Your task to perform on an android device: uninstall "Expedia: Hotels, Flights & Car" Image 0: 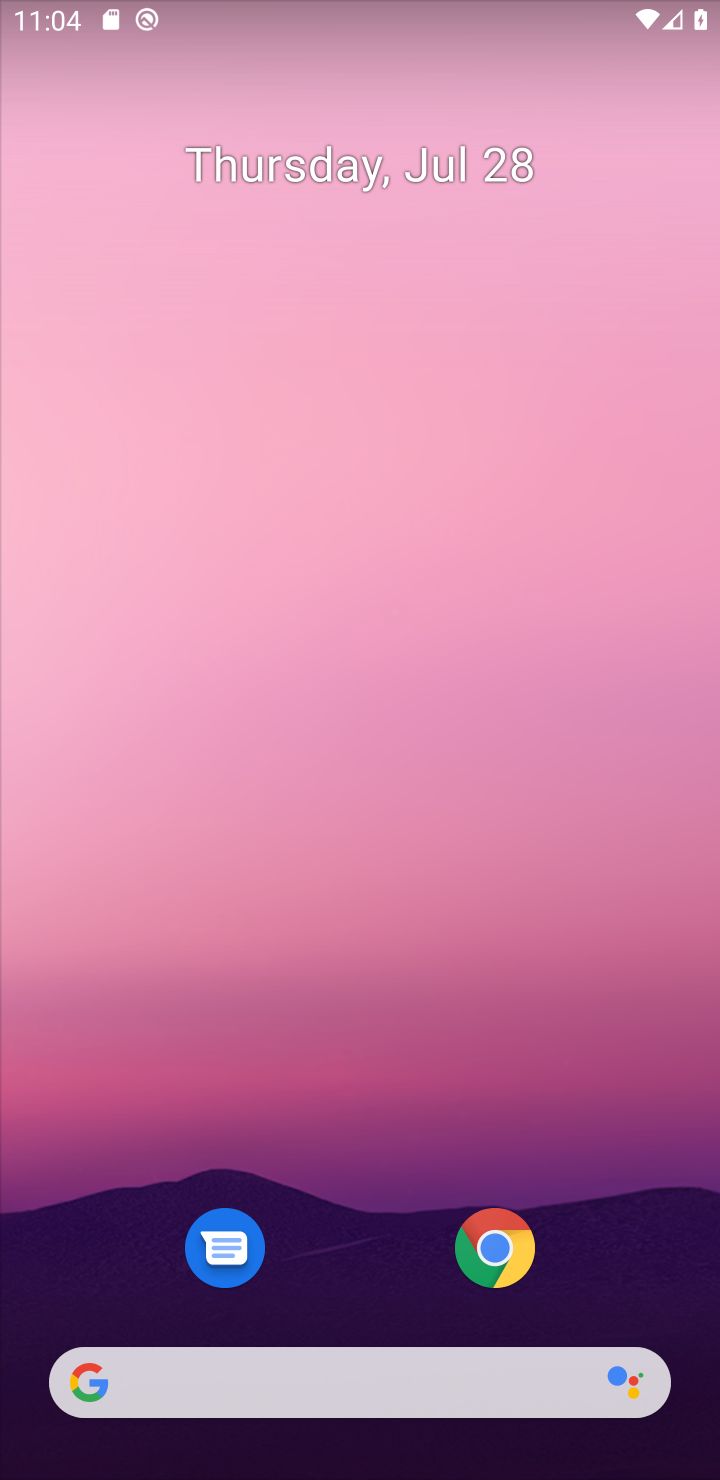
Step 0: press home button
Your task to perform on an android device: uninstall "Expedia: Hotels, Flights & Car" Image 1: 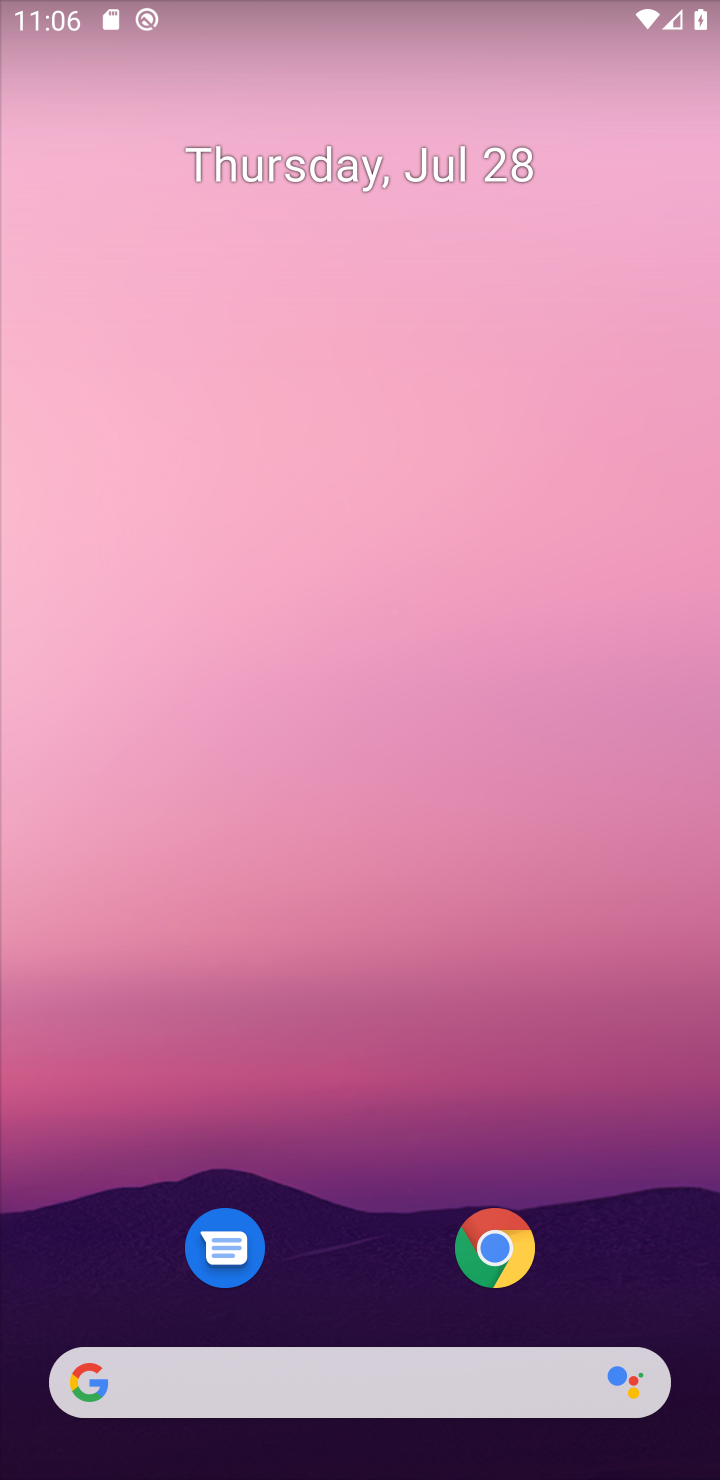
Step 1: drag from (337, 1190) to (550, 456)
Your task to perform on an android device: uninstall "Expedia: Hotels, Flights & Car" Image 2: 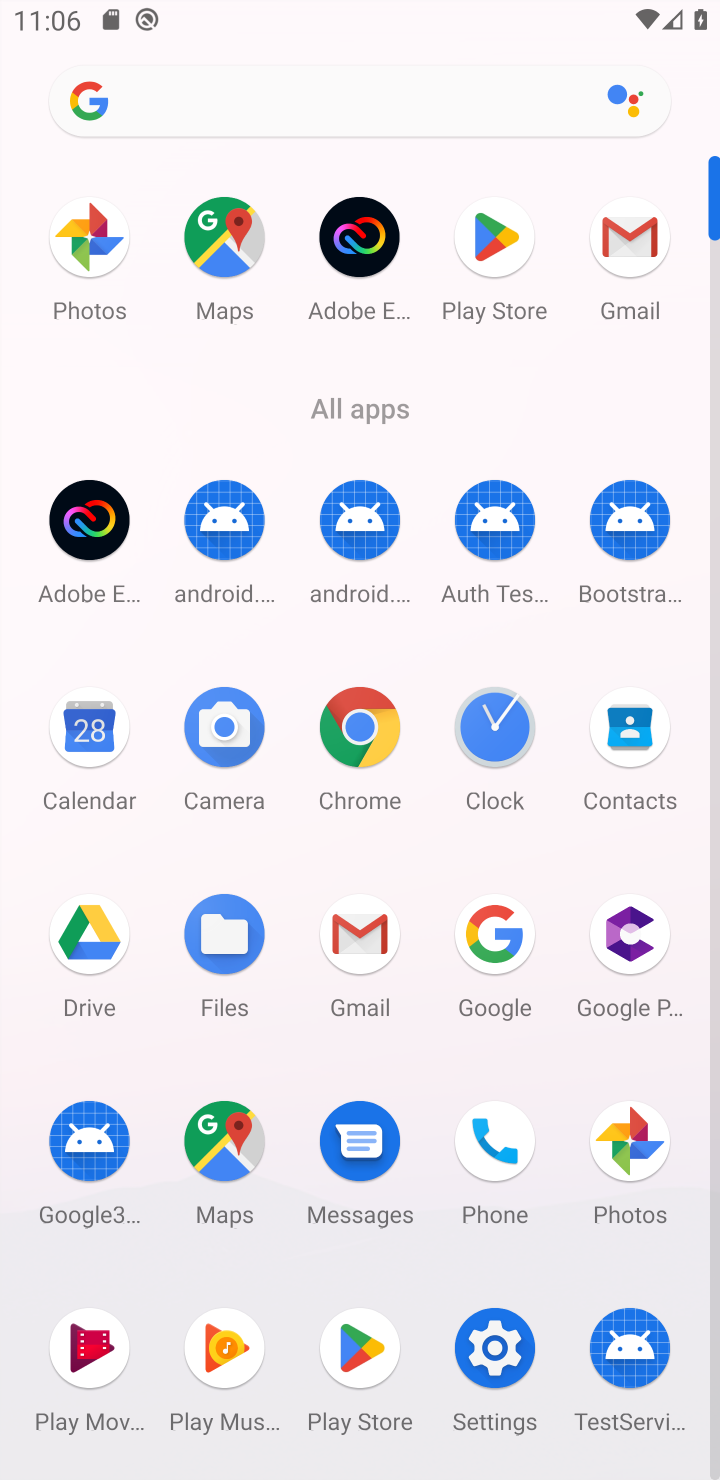
Step 2: click (475, 231)
Your task to perform on an android device: uninstall "Expedia: Hotels, Flights & Car" Image 3: 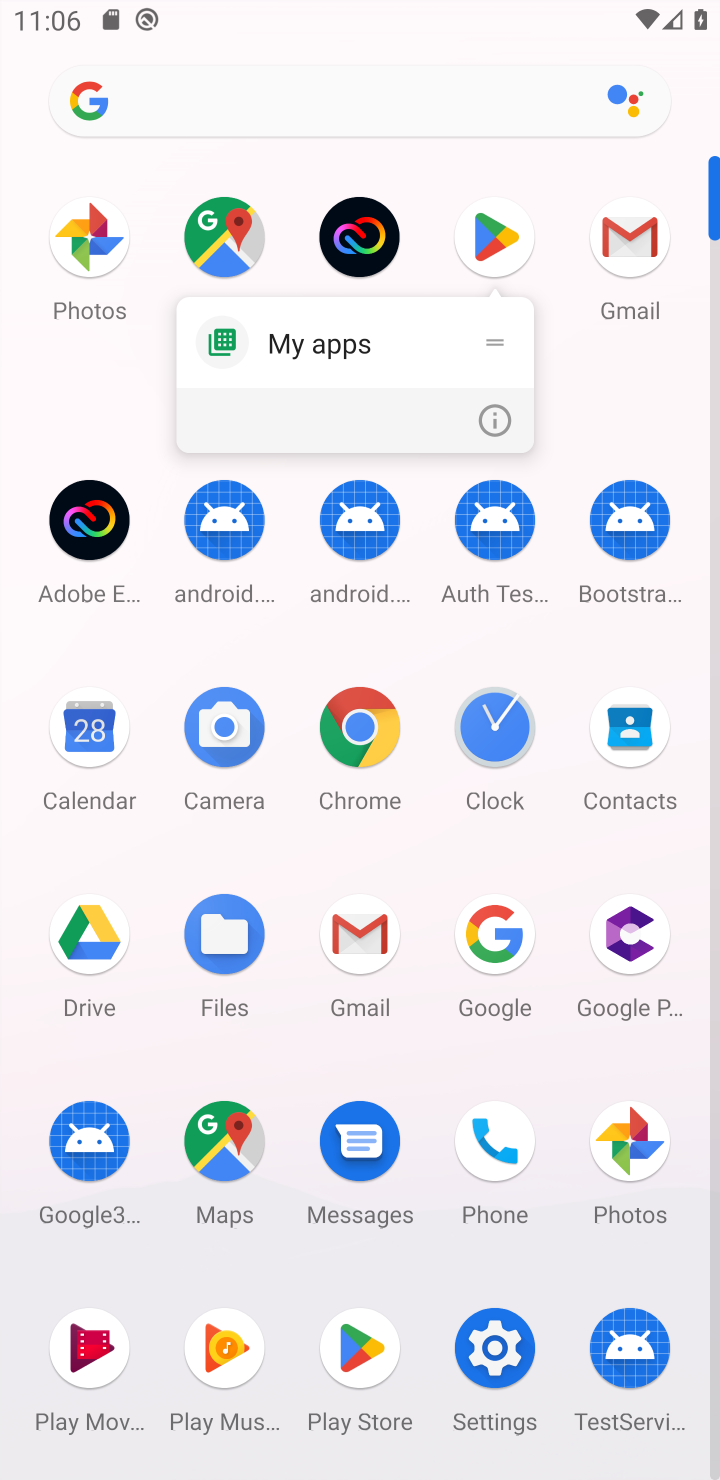
Step 3: click (477, 265)
Your task to perform on an android device: uninstall "Expedia: Hotels, Flights & Car" Image 4: 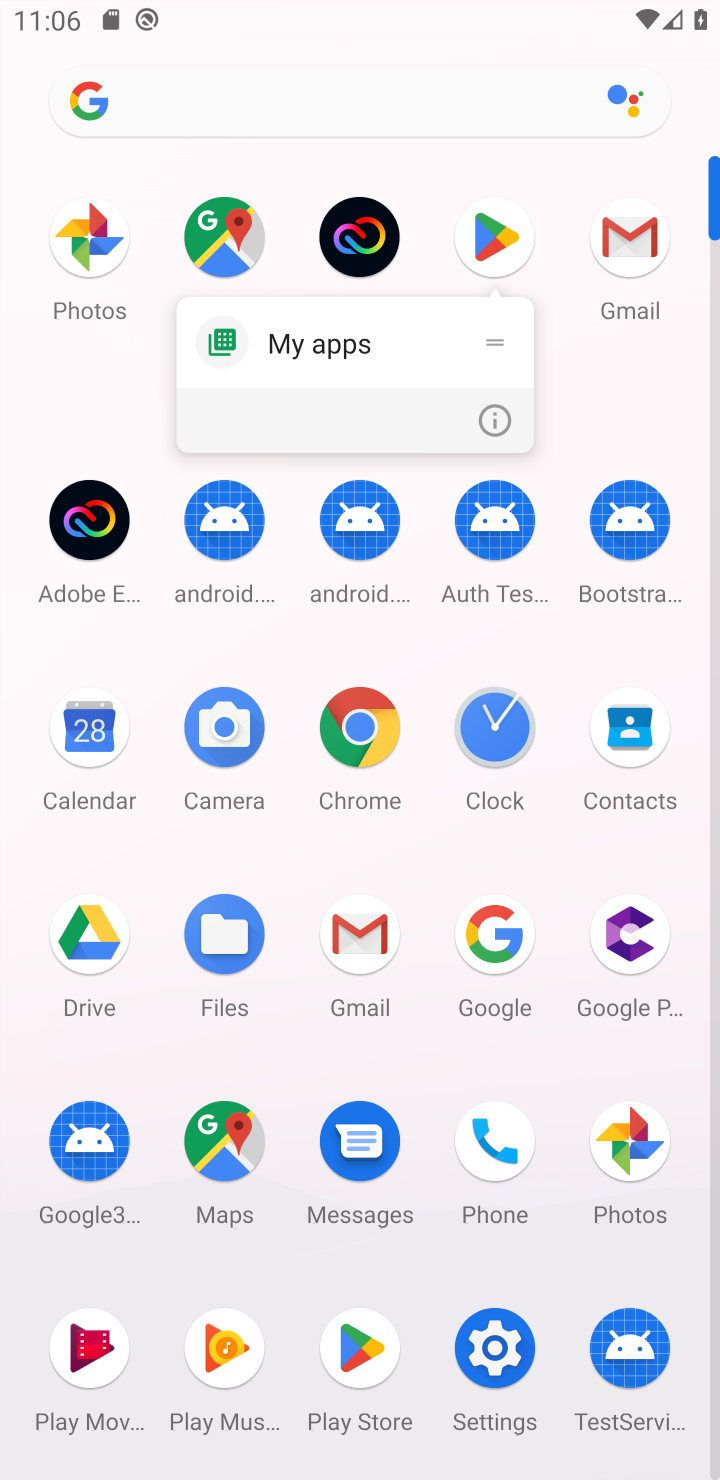
Step 4: click (477, 265)
Your task to perform on an android device: uninstall "Expedia: Hotels, Flights & Car" Image 5: 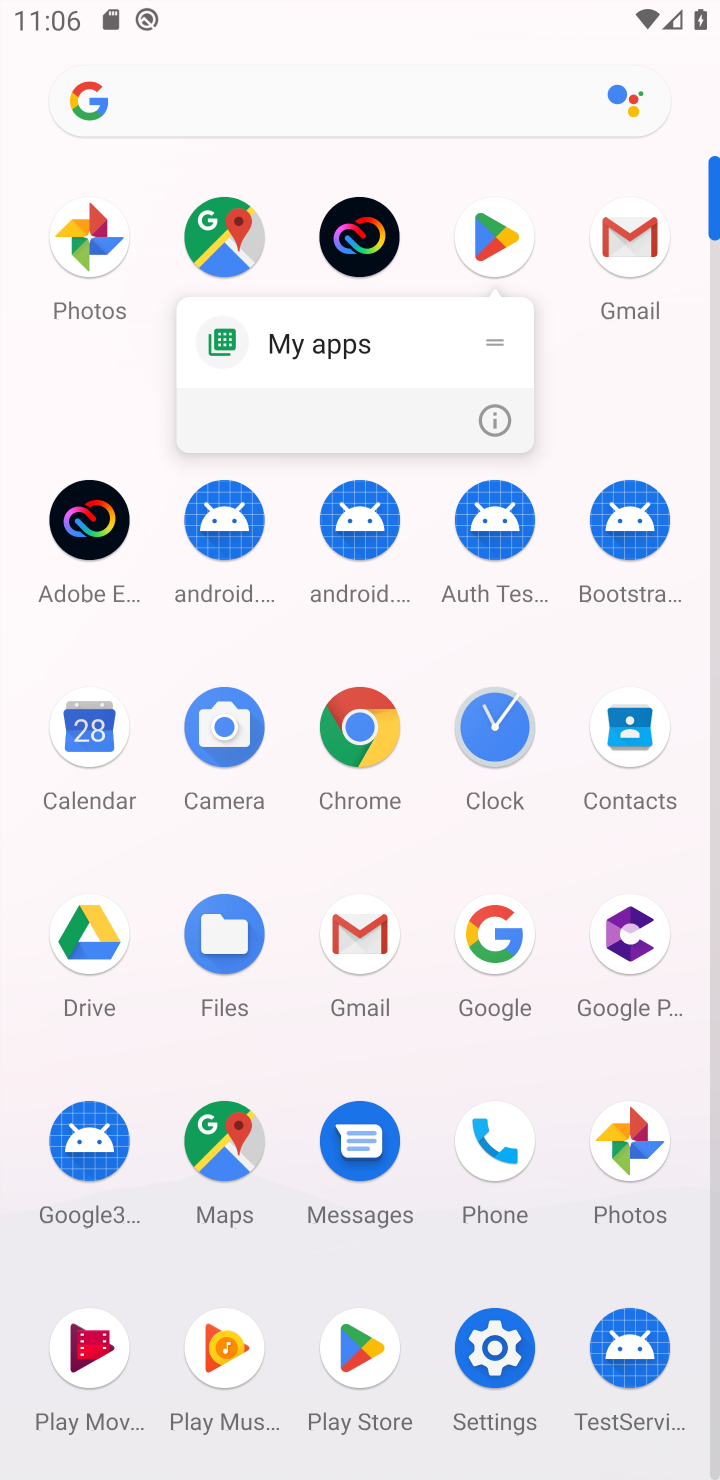
Step 5: click (479, 225)
Your task to perform on an android device: uninstall "Expedia: Hotels, Flights & Car" Image 6: 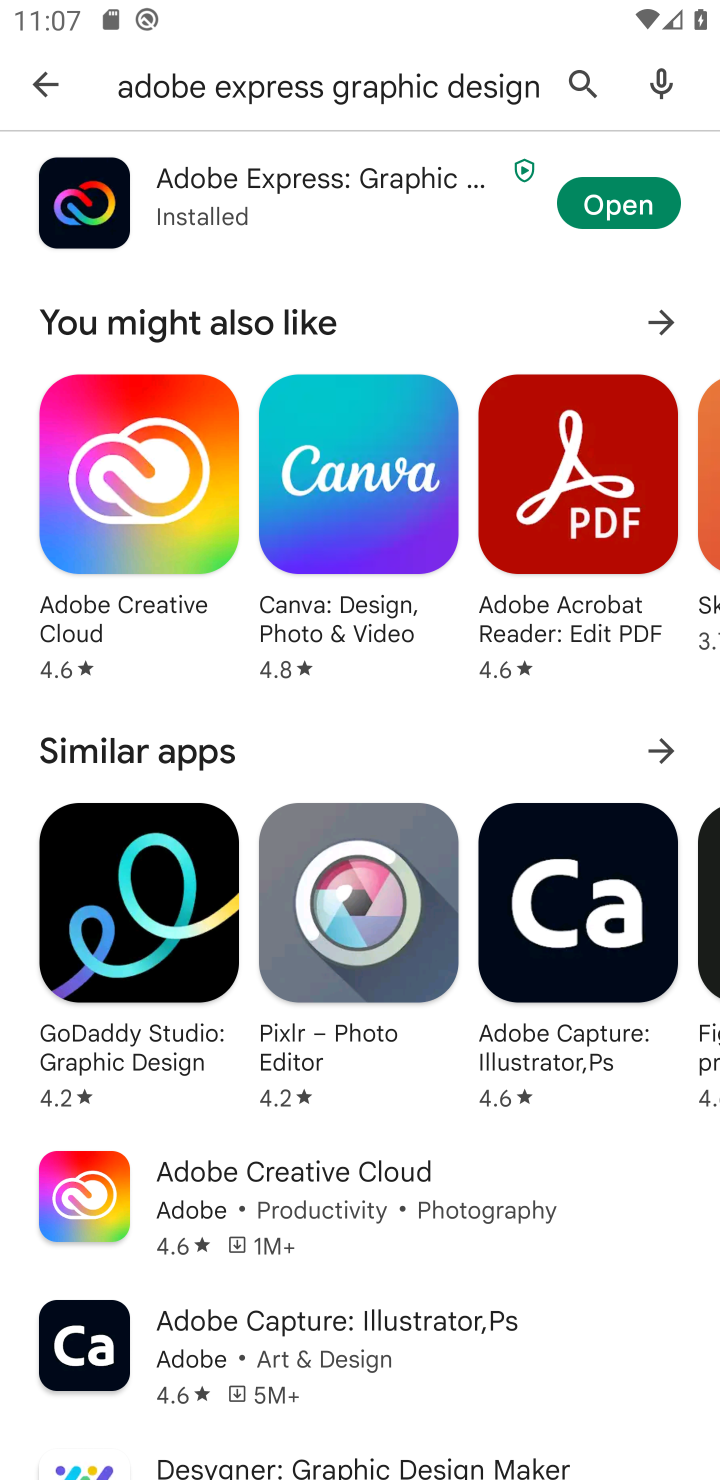
Step 6: click (586, 87)
Your task to perform on an android device: uninstall "Expedia: Hotels, Flights & Car" Image 7: 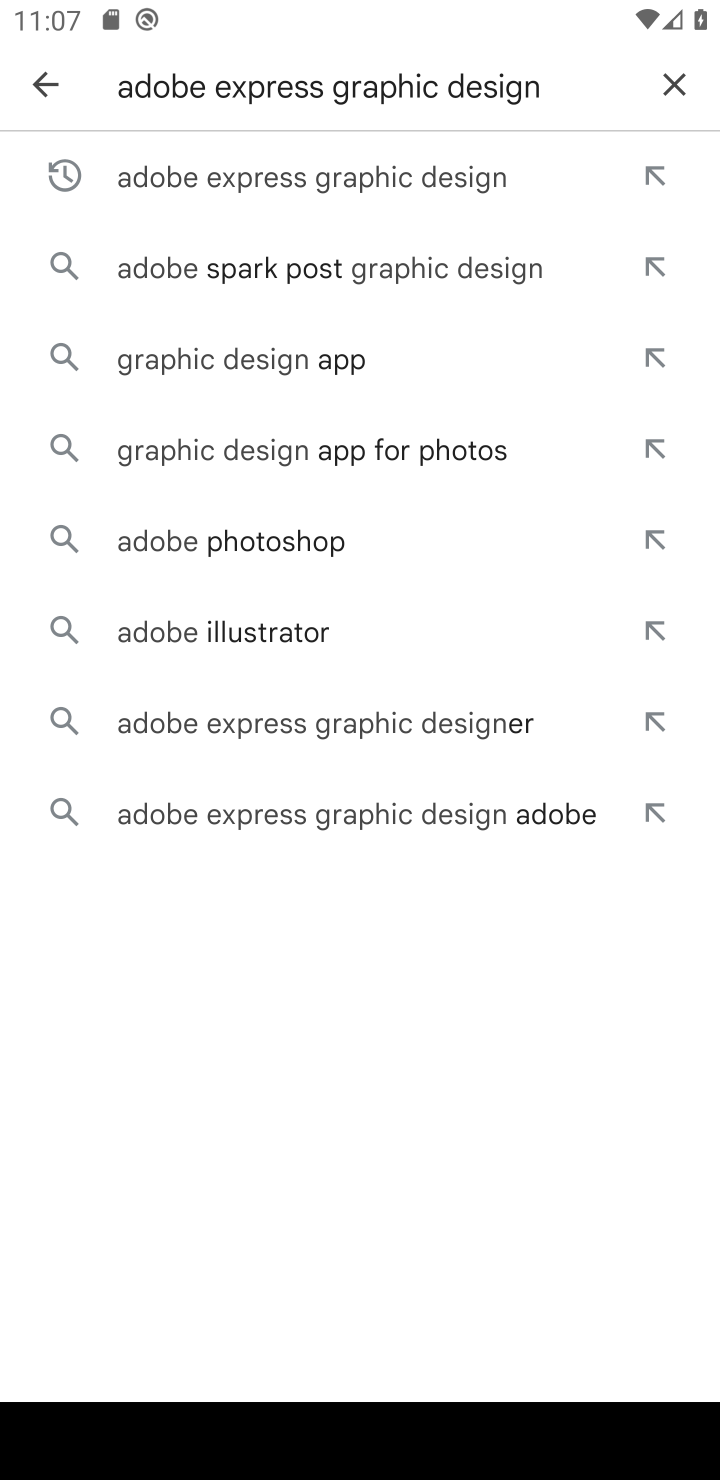
Step 7: click (669, 83)
Your task to perform on an android device: uninstall "Expedia: Hotels, Flights & Car" Image 8: 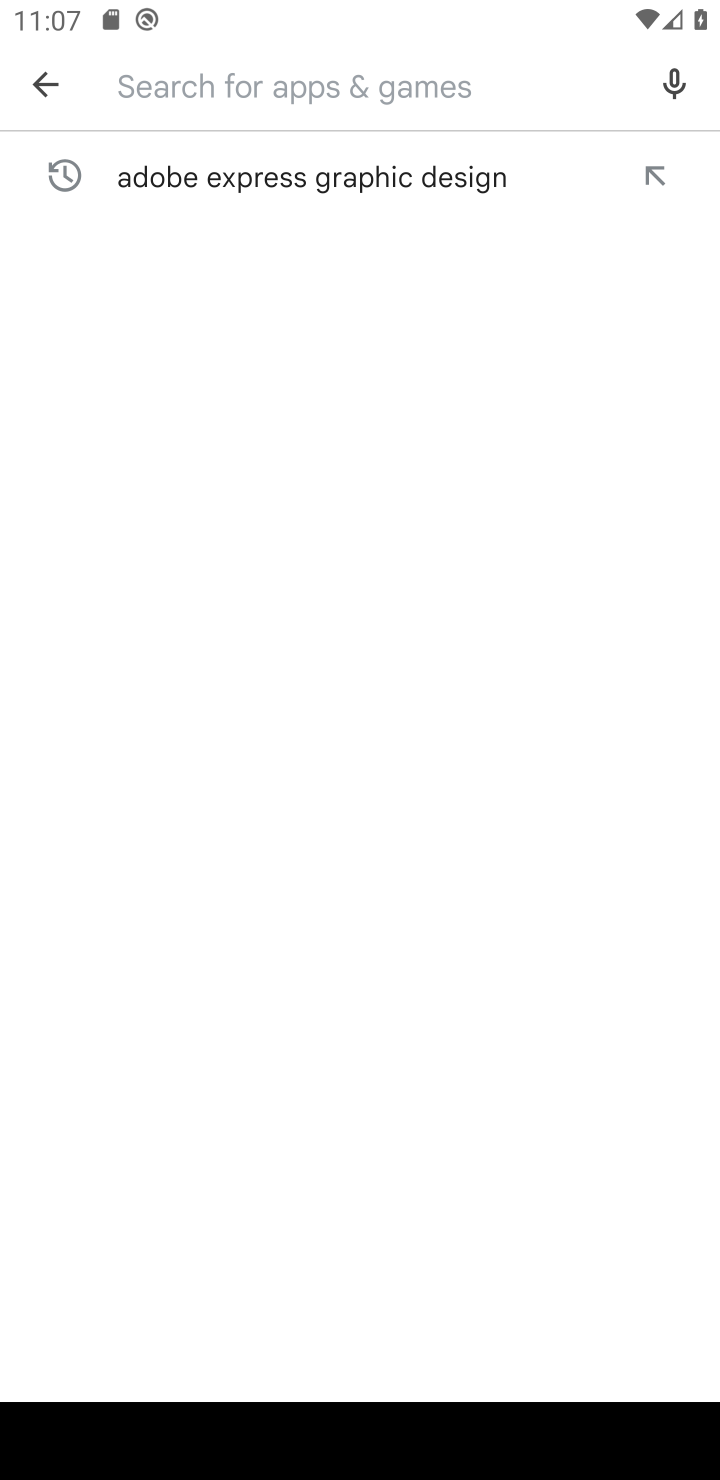
Step 8: type "Expedia: Hotels, Flights & Car""
Your task to perform on an android device: uninstall "Expedia: Hotels, Flights & Car" Image 9: 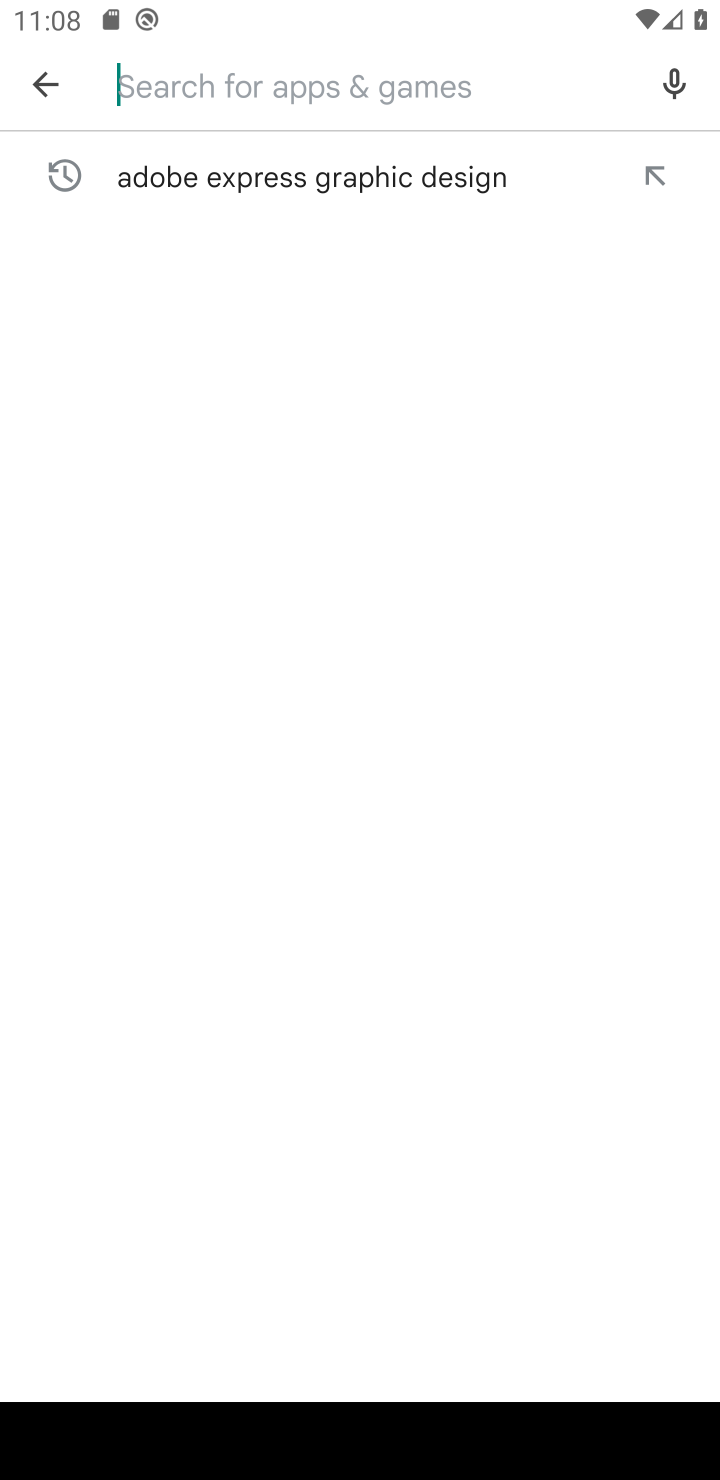
Step 9: type "Expedia: Hotels, Flights & Car""
Your task to perform on an android device: uninstall "Expedia: Hotels, Flights & Car" Image 10: 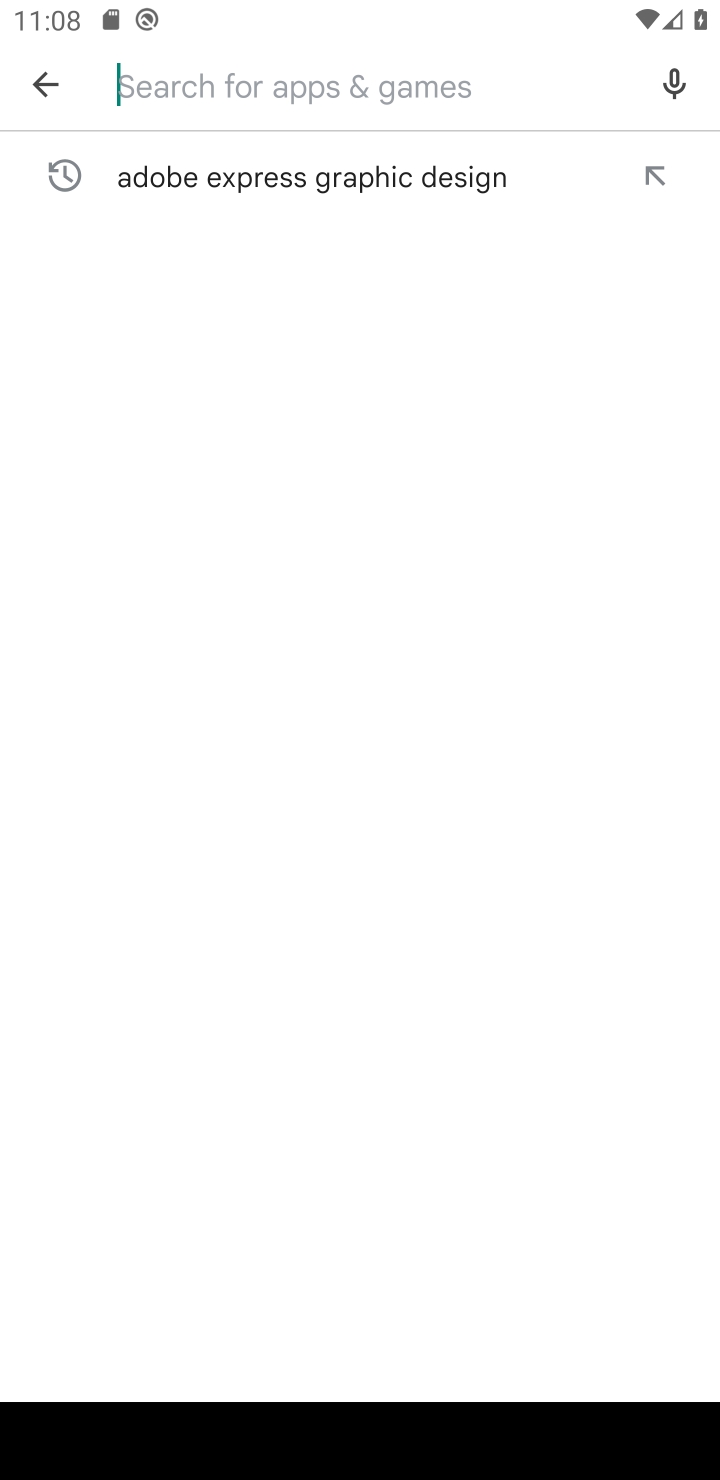
Step 10: type ""
Your task to perform on an android device: uninstall "Expedia: Hotels, Flights & Car" Image 11: 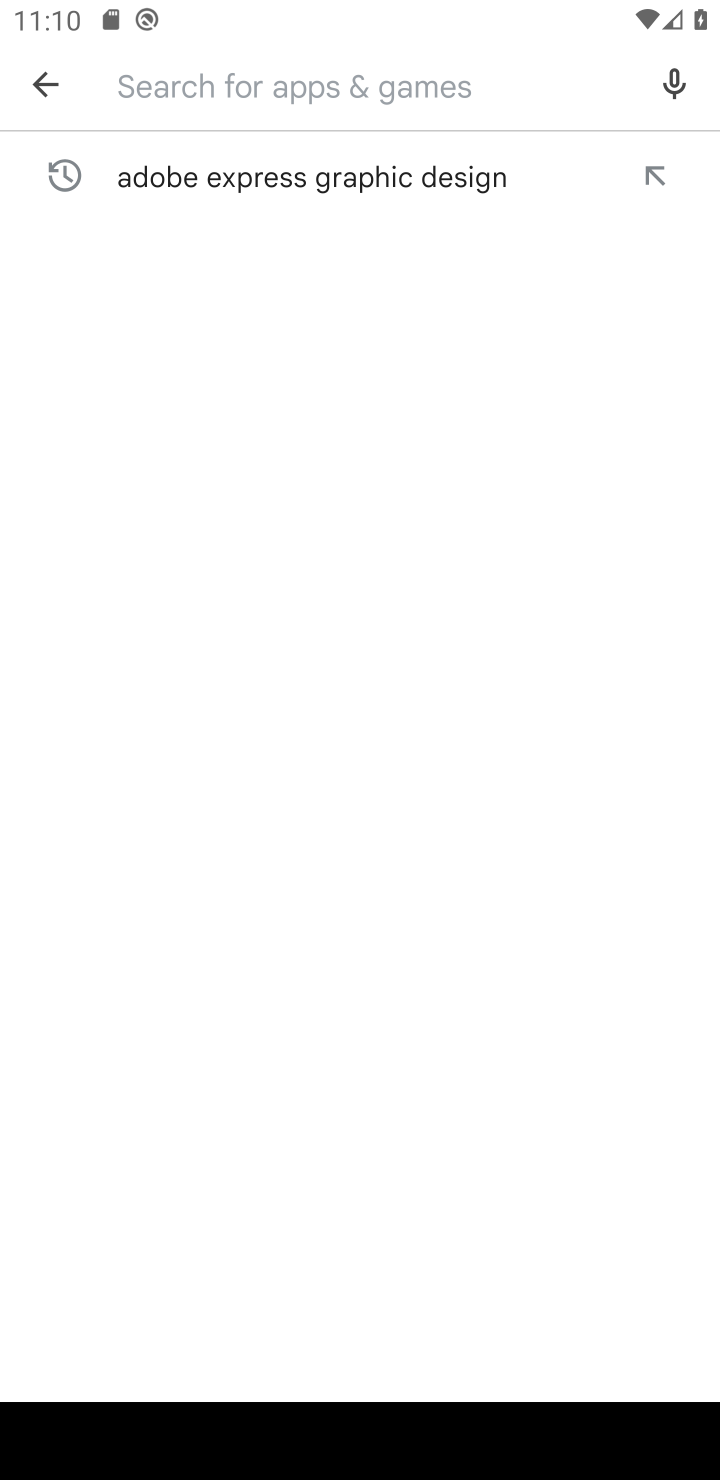
Step 11: type "Expedia: Hotels, Flights & Car""
Your task to perform on an android device: uninstall "Expedia: Hotels, Flights & Car" Image 12: 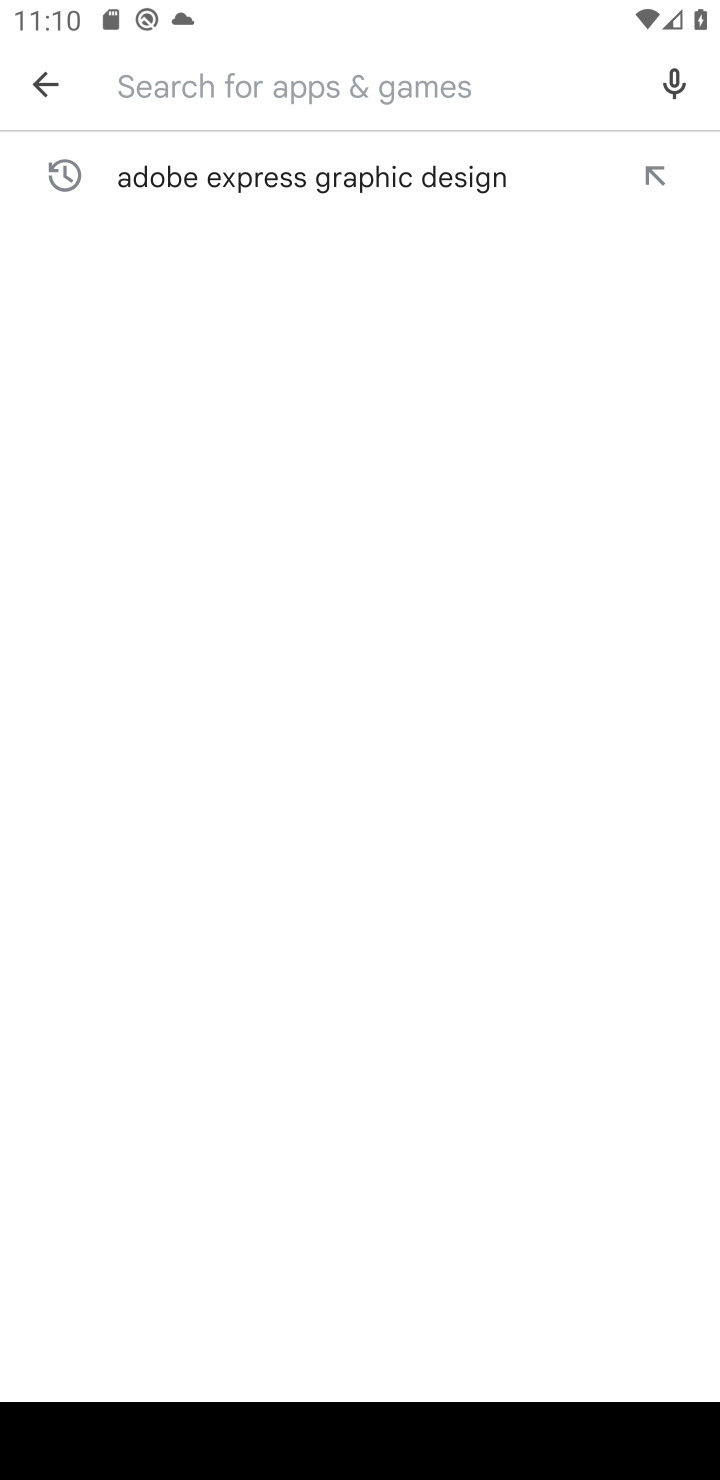
Step 12: type "Expedia: Hotels, Flights & Car""
Your task to perform on an android device: uninstall "Expedia: Hotels, Flights & Car" Image 13: 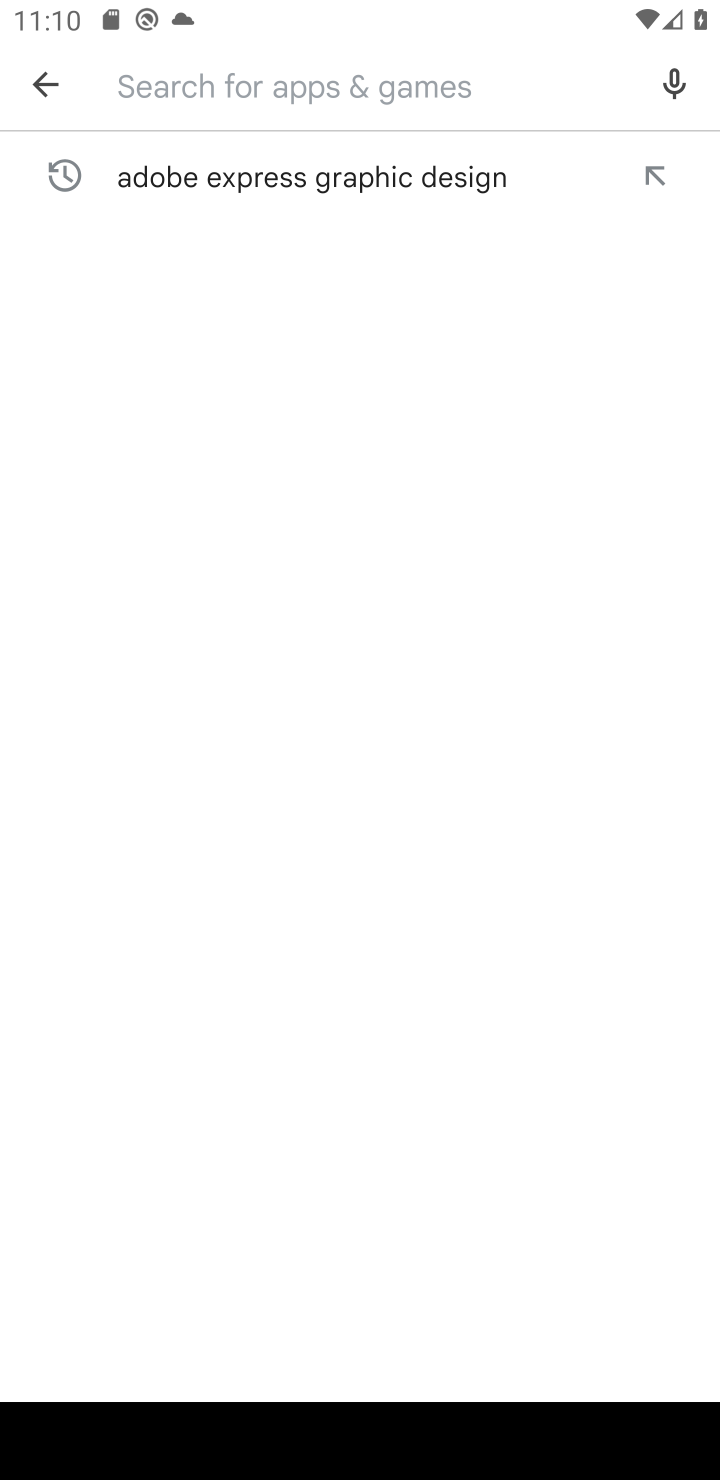
Step 13: type ""
Your task to perform on an android device: uninstall "Expedia: Hotels, Flights & Car" Image 14: 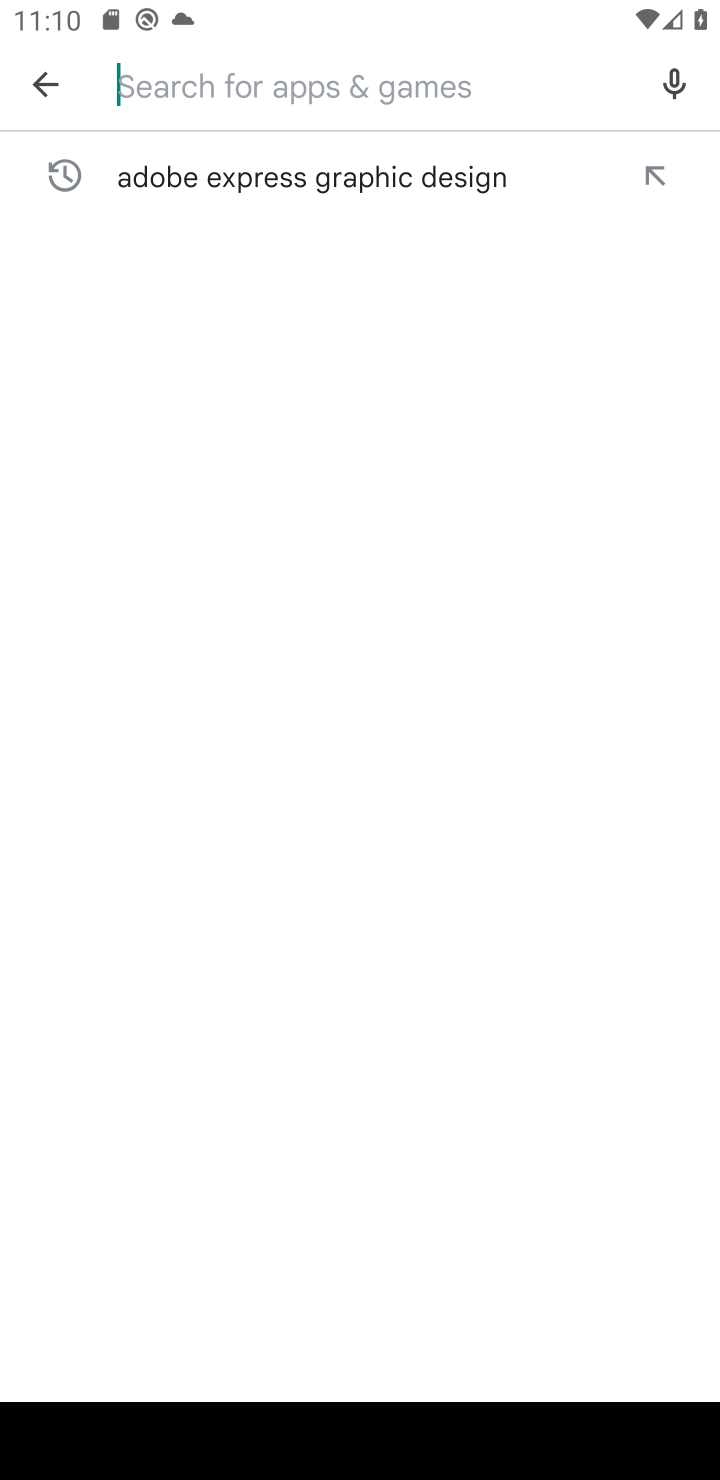
Step 14: click (46, 88)
Your task to perform on an android device: uninstall "Expedia: Hotels, Flights & Car" Image 15: 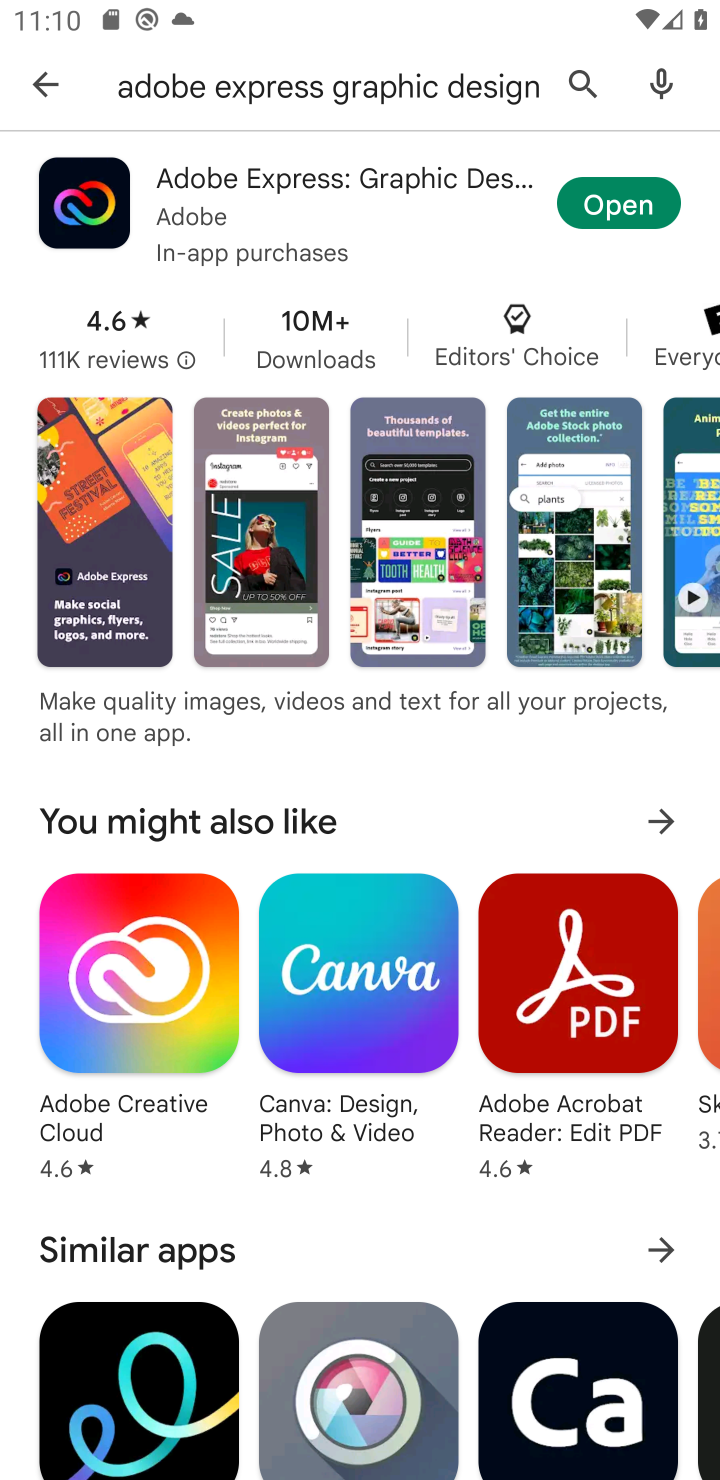
Step 15: click (582, 59)
Your task to perform on an android device: uninstall "Expedia: Hotels, Flights & Car" Image 16: 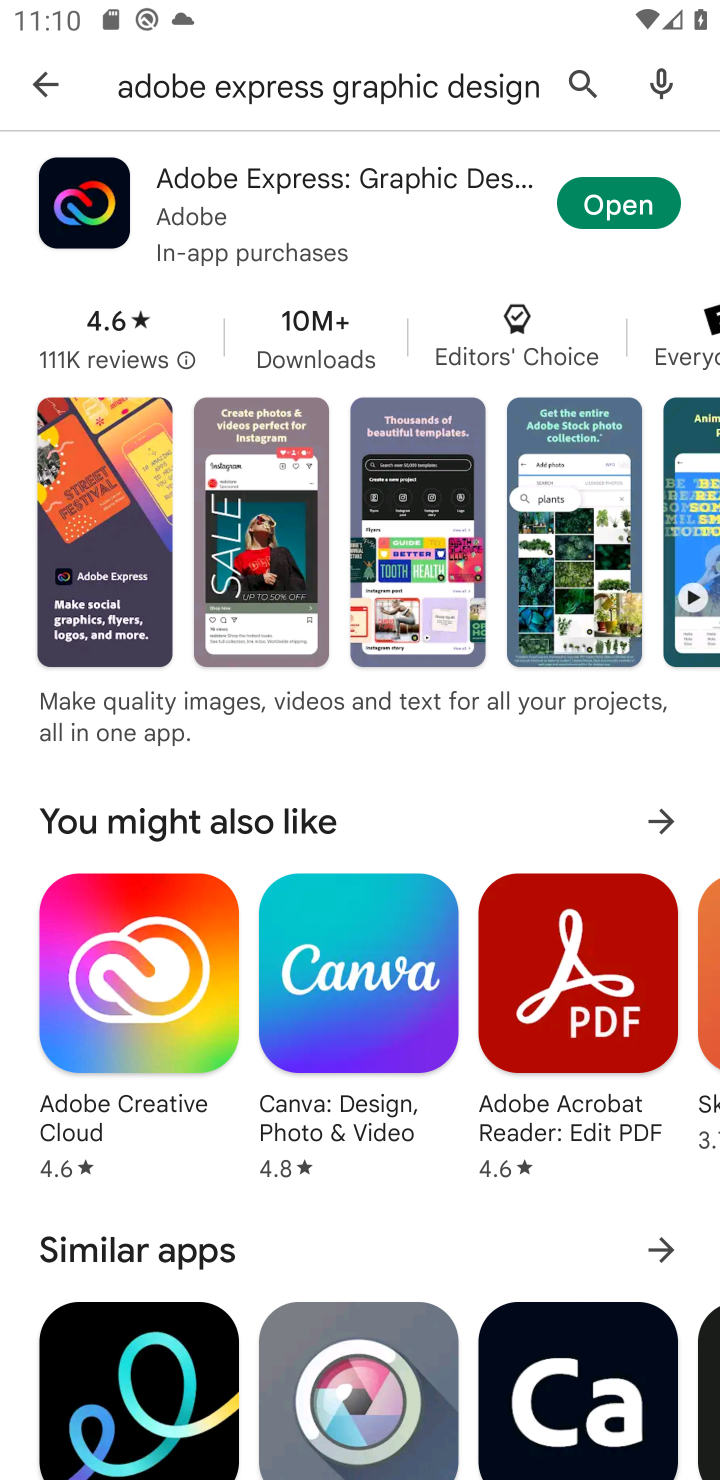
Step 16: click (662, 84)
Your task to perform on an android device: uninstall "Expedia: Hotels, Flights & Car" Image 17: 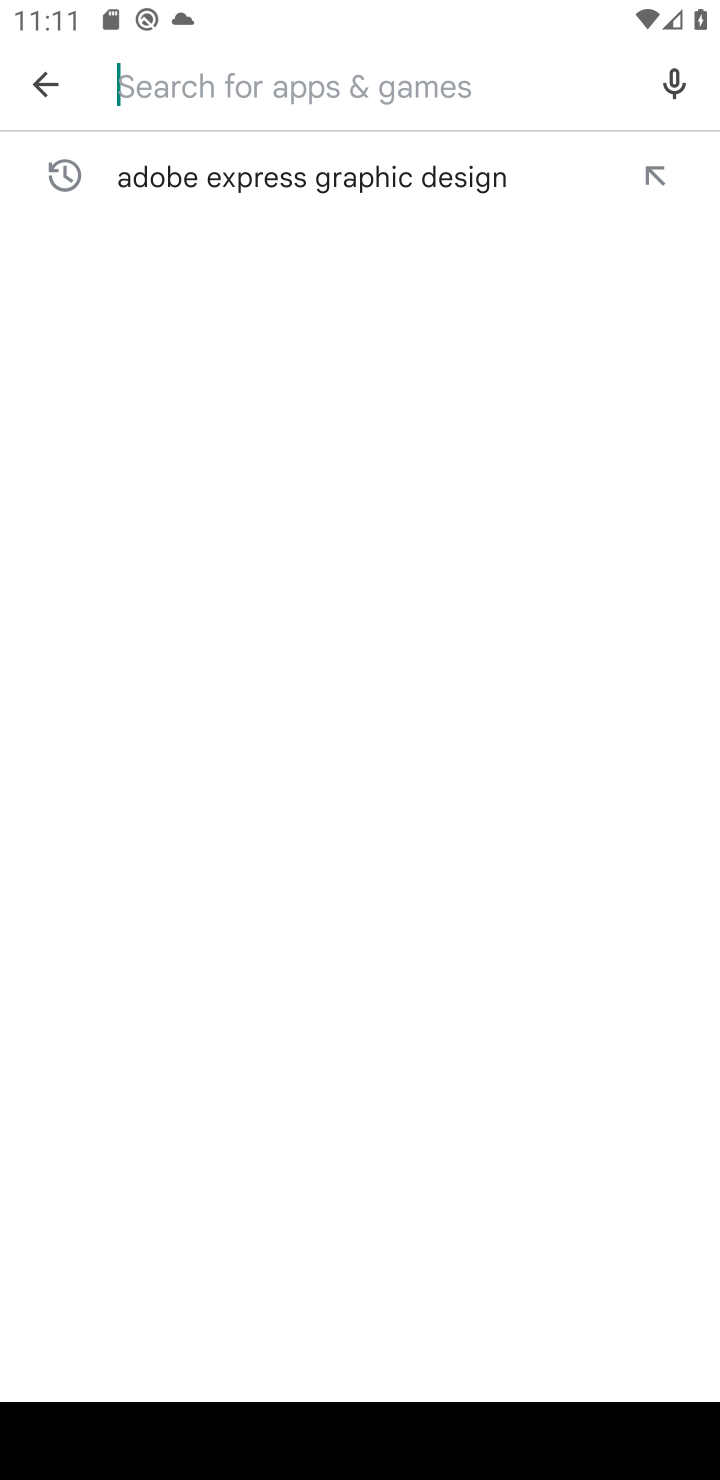
Step 17: type "Expedia: Hotels, Flights & Car""
Your task to perform on an android device: uninstall "Expedia: Hotels, Flights & Car" Image 18: 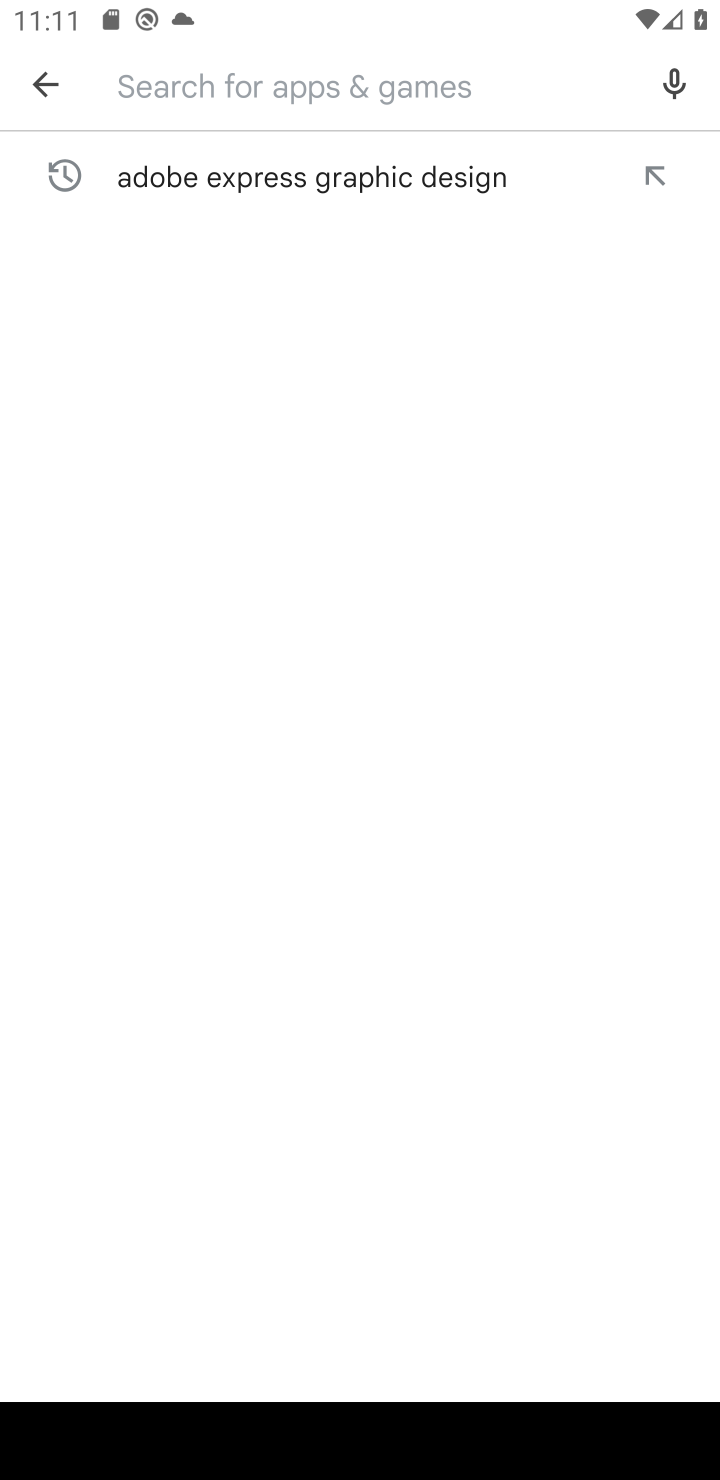
Step 18: type ""
Your task to perform on an android device: uninstall "Expedia: Hotels, Flights & Car" Image 19: 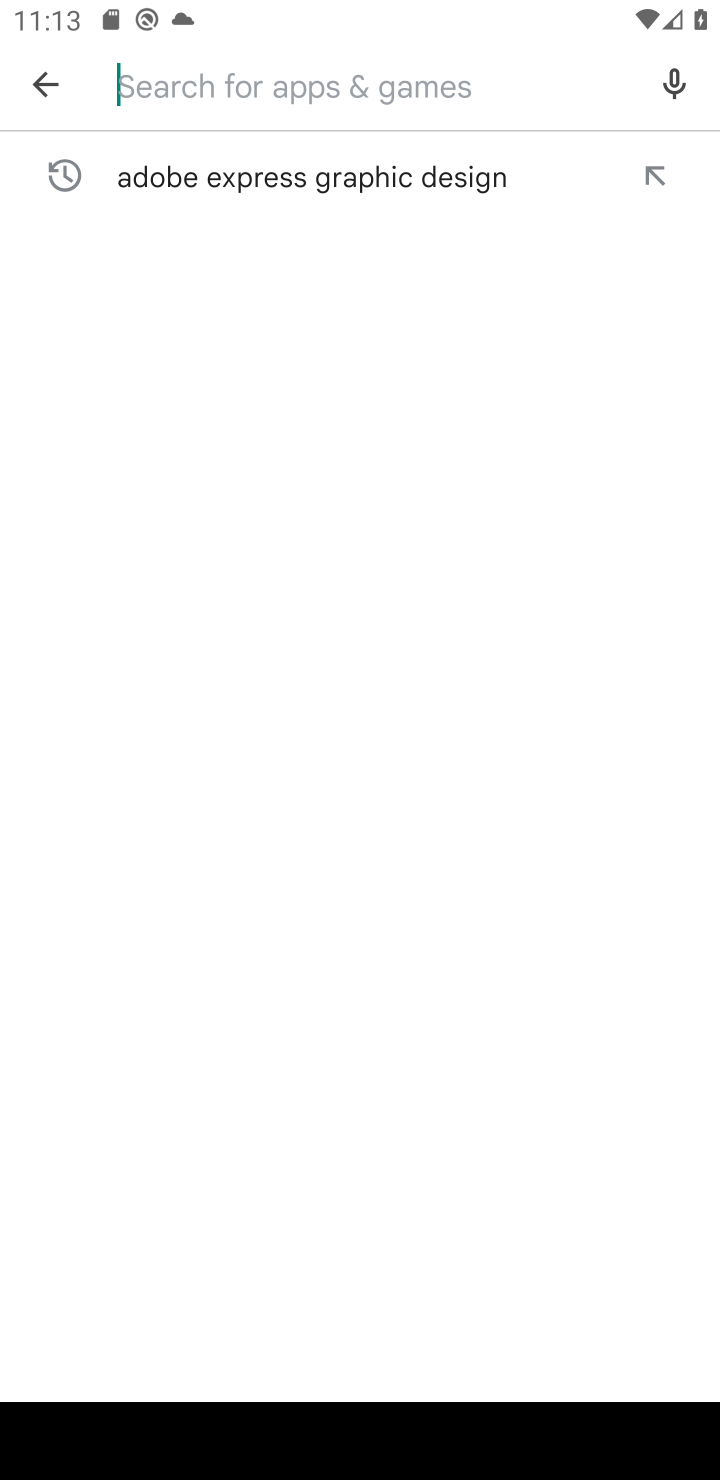
Step 19: type "Exoedia; Hotels, Flights & Car"
Your task to perform on an android device: uninstall "Expedia: Hotels, Flights & Car" Image 20: 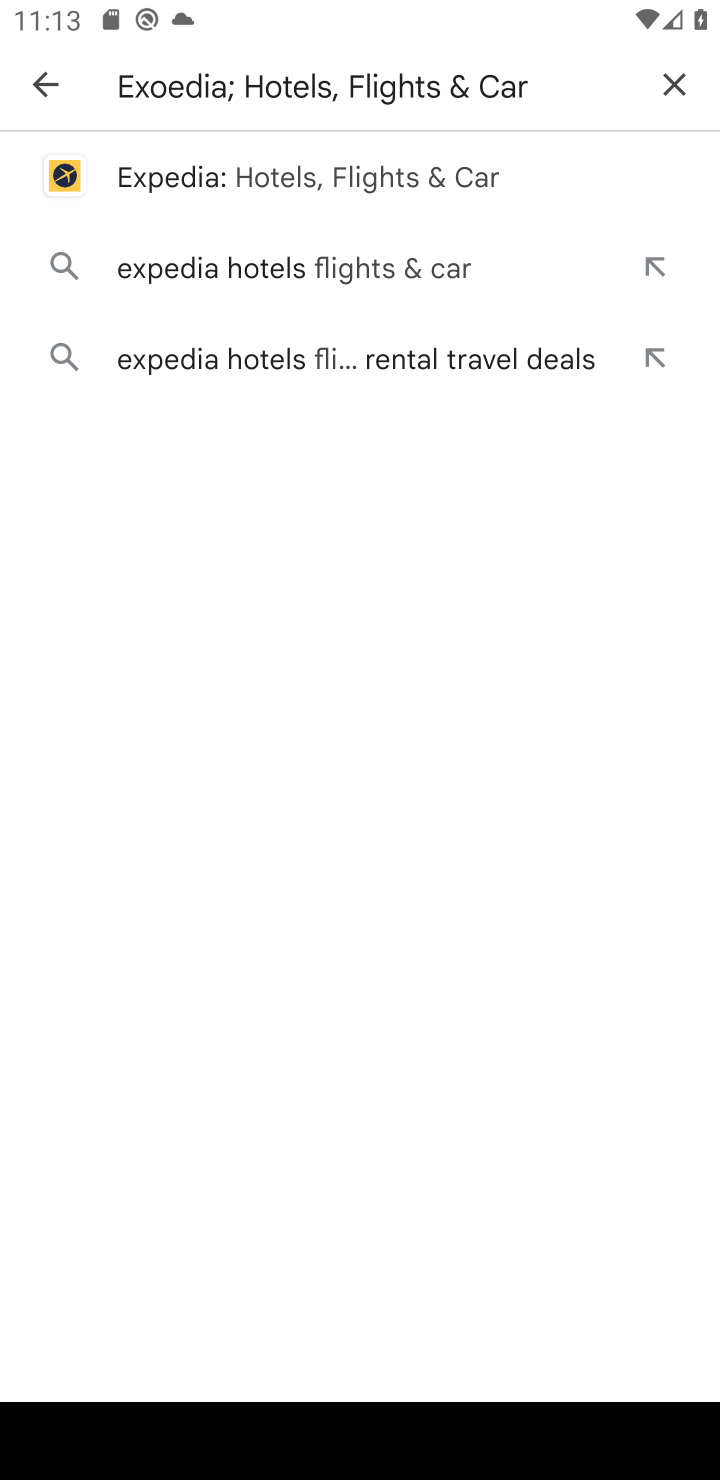
Step 20: click (350, 170)
Your task to perform on an android device: uninstall "Expedia: Hotels, Flights & Car" Image 21: 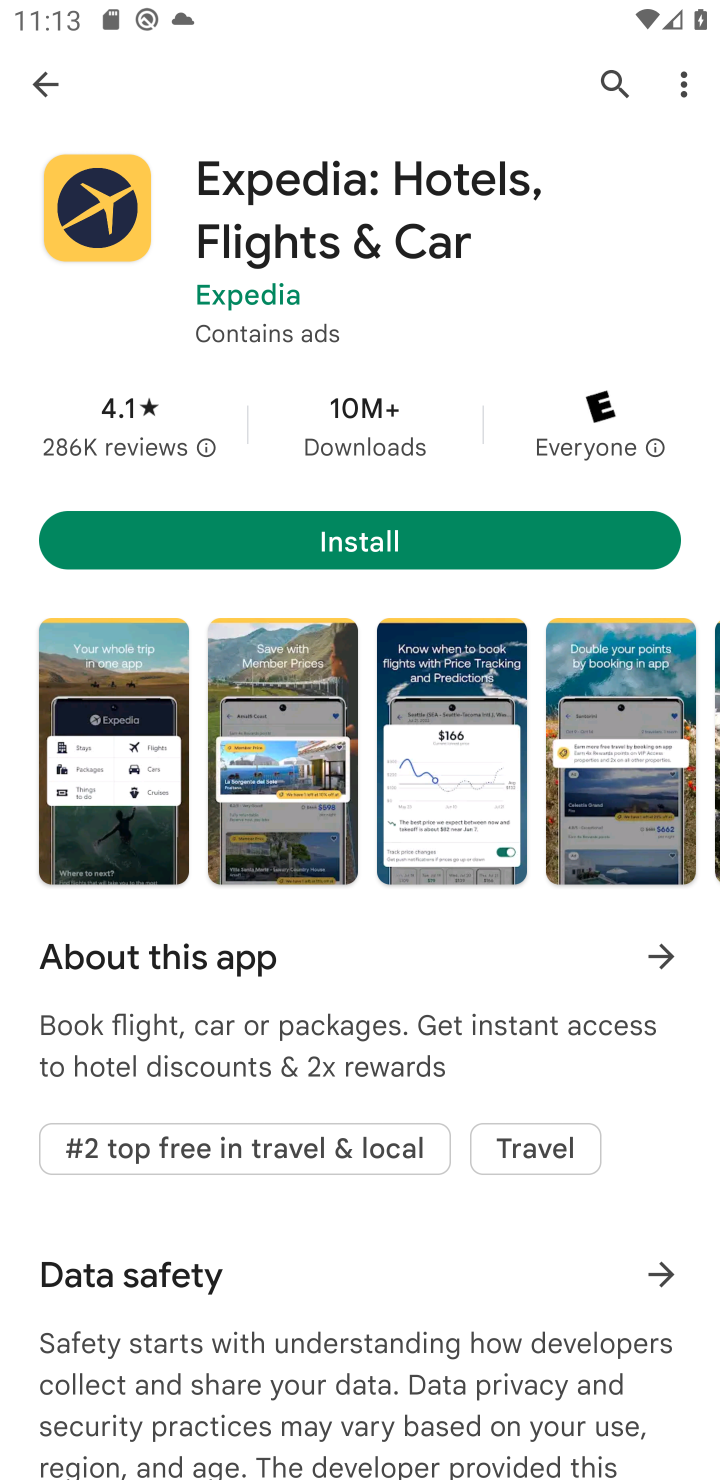
Step 21: click (426, 553)
Your task to perform on an android device: uninstall "Expedia: Hotels, Flights & Car" Image 22: 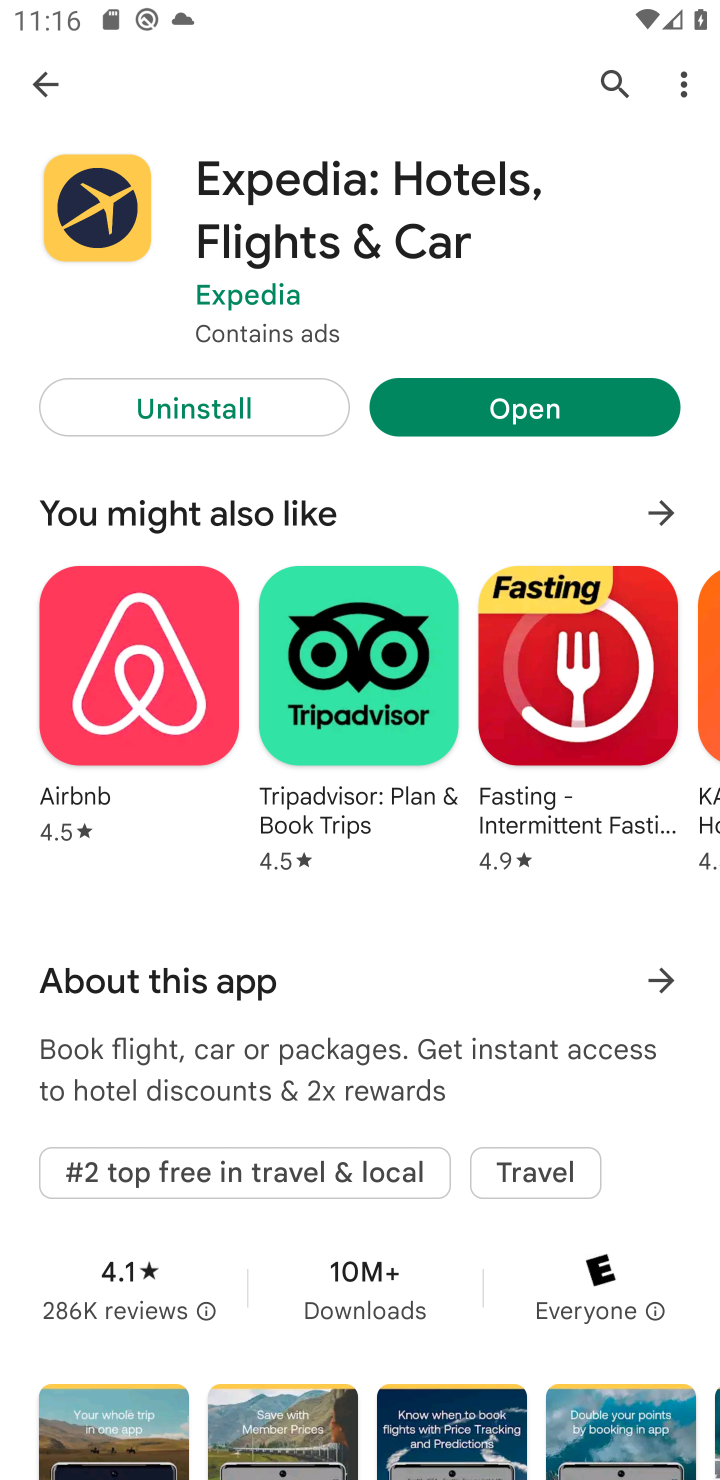
Step 22: click (287, 405)
Your task to perform on an android device: uninstall "Expedia: Hotels, Flights & Car" Image 23: 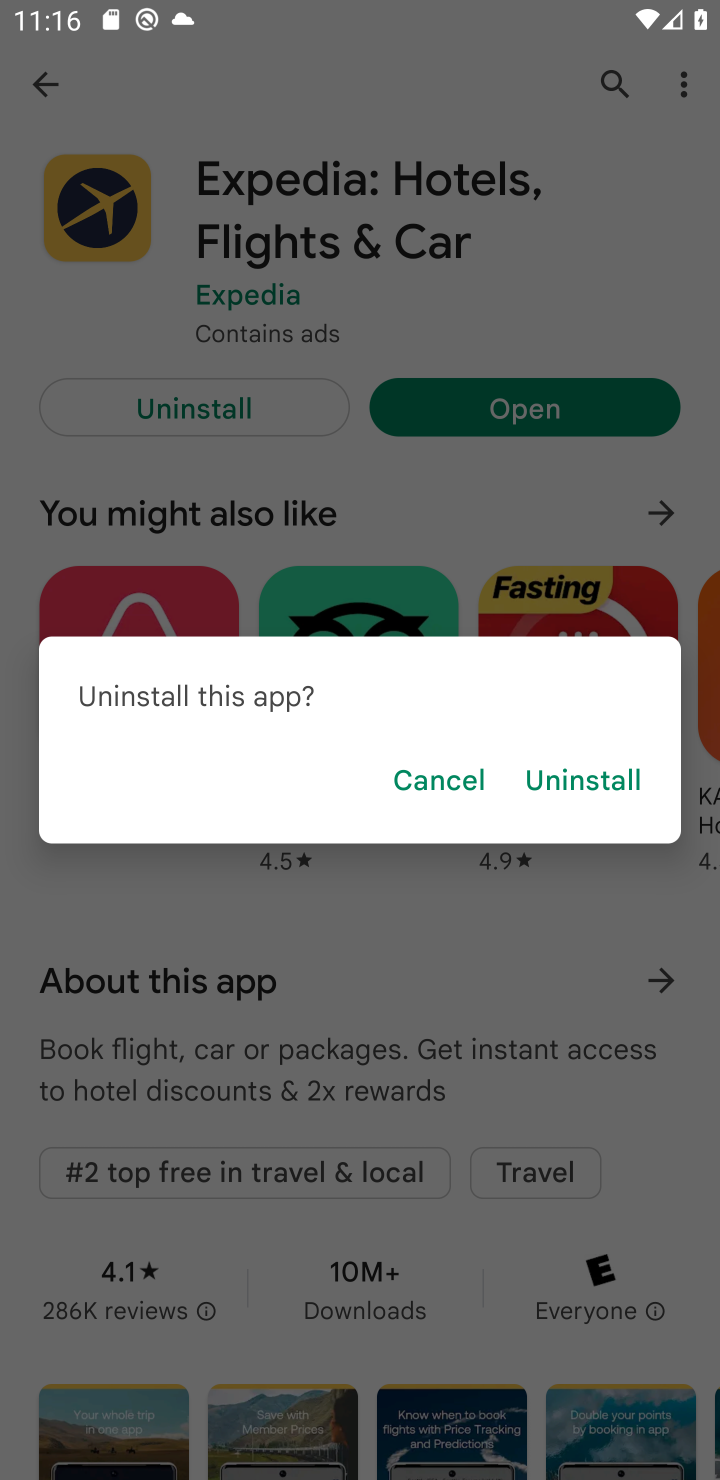
Step 23: click (584, 796)
Your task to perform on an android device: uninstall "Expedia: Hotels, Flights & Car" Image 24: 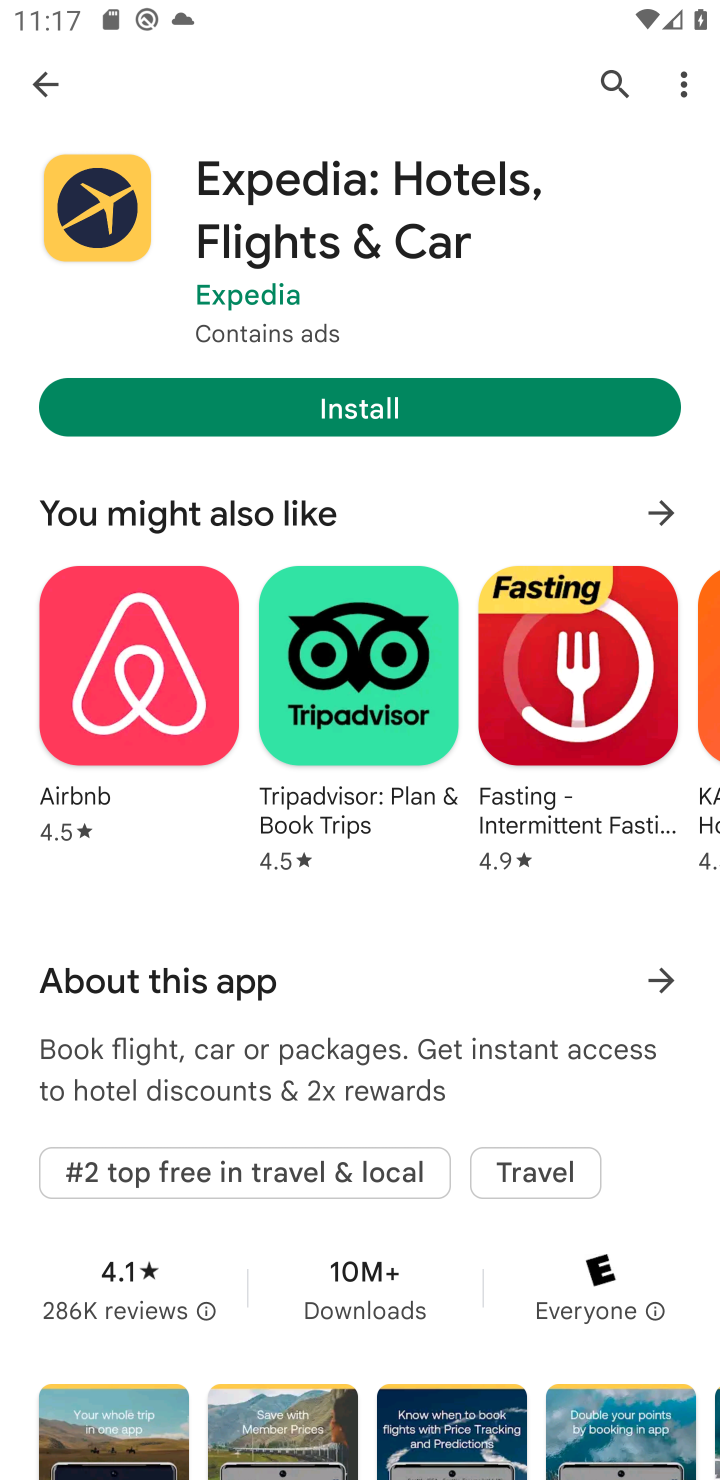
Step 24: task complete